Your task to perform on an android device: Go to CNN.com Image 0: 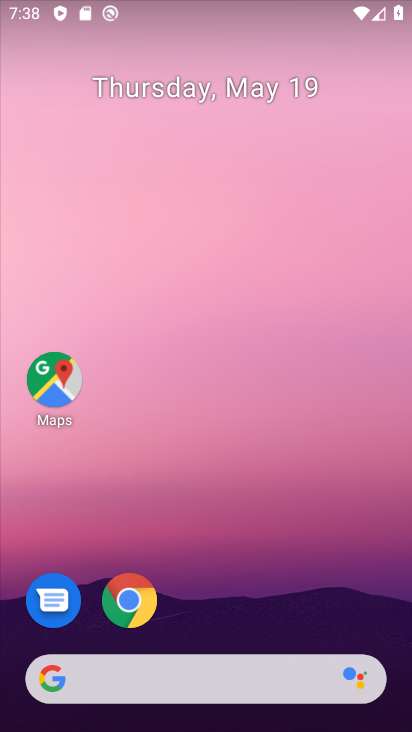
Step 0: drag from (368, 600) to (370, 265)
Your task to perform on an android device: Go to CNN.com Image 1: 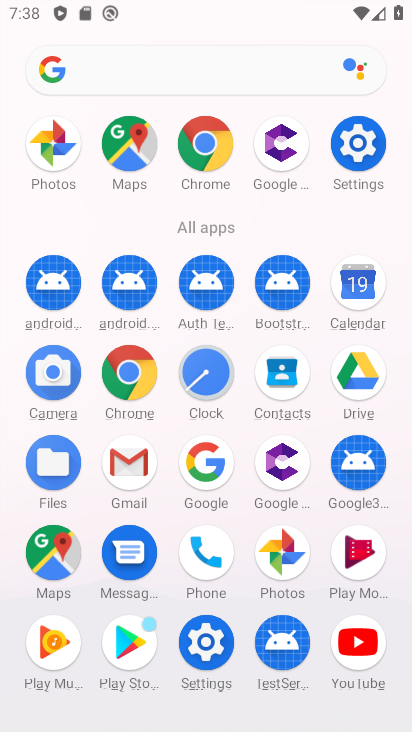
Step 1: click (130, 389)
Your task to perform on an android device: Go to CNN.com Image 2: 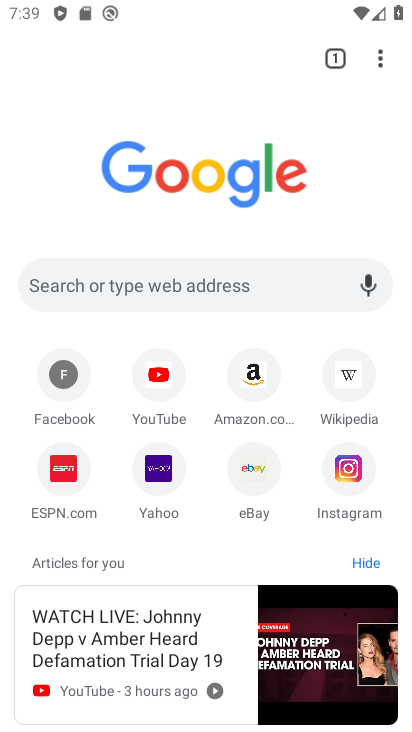
Step 2: click (249, 273)
Your task to perform on an android device: Go to CNN.com Image 3: 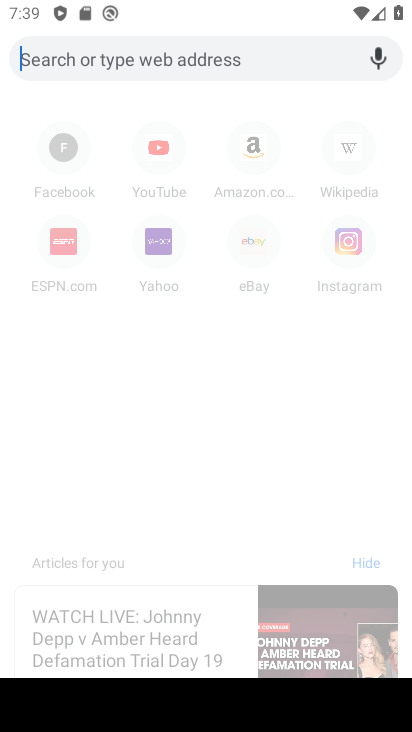
Step 3: type "cnn.com"
Your task to perform on an android device: Go to CNN.com Image 4: 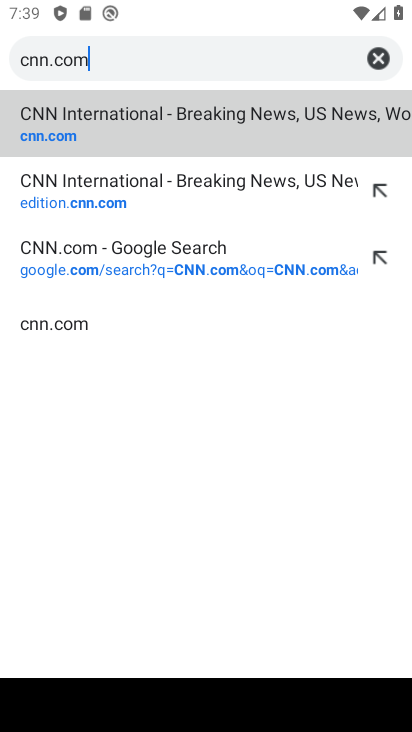
Step 4: click (173, 129)
Your task to perform on an android device: Go to CNN.com Image 5: 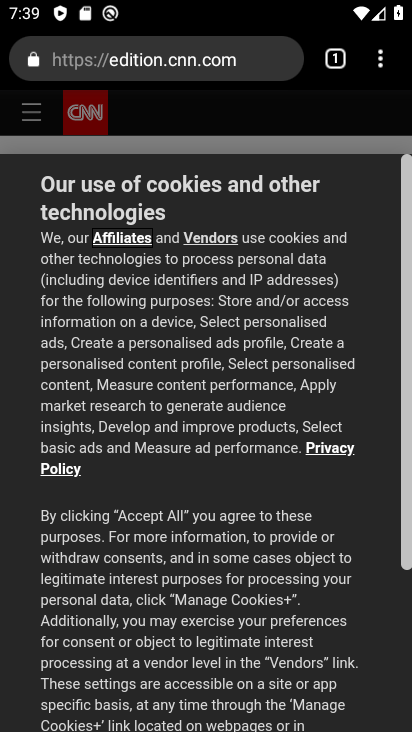
Step 5: task complete